Your task to perform on an android device: open a new tab in the chrome app Image 0: 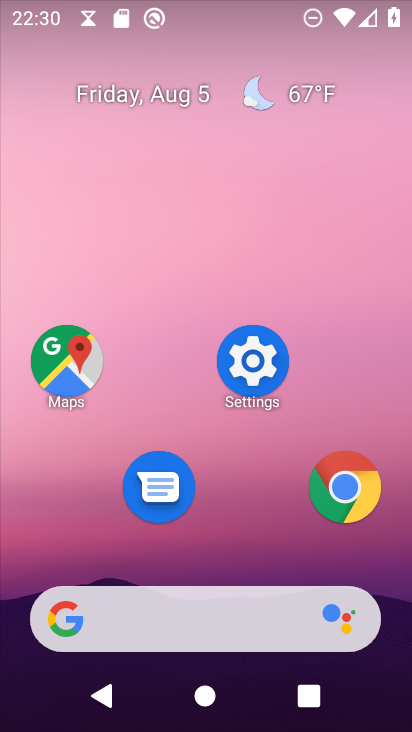
Step 0: click (350, 493)
Your task to perform on an android device: open a new tab in the chrome app Image 1: 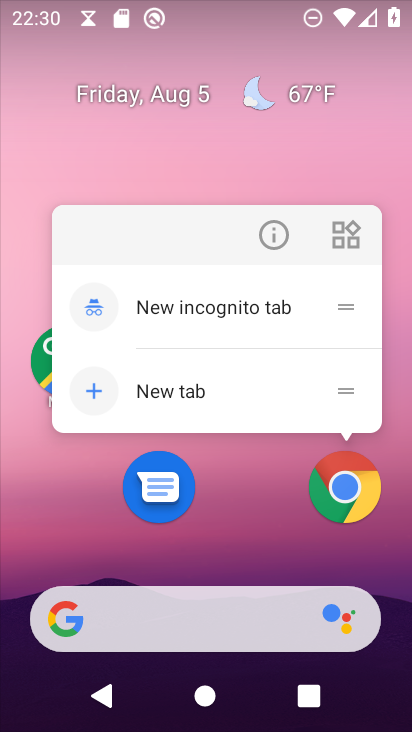
Step 1: click (350, 500)
Your task to perform on an android device: open a new tab in the chrome app Image 2: 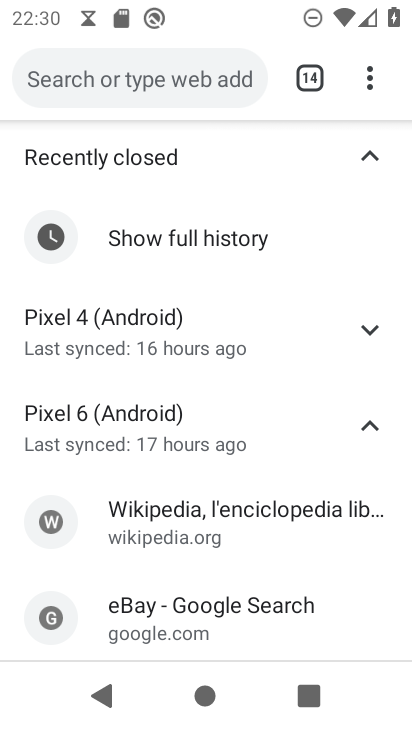
Step 2: task complete